Your task to perform on an android device: Do I have any events today? Image 0: 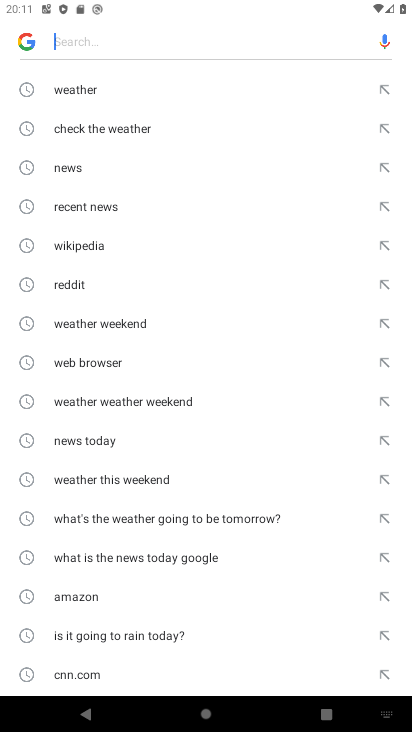
Step 0: press home button
Your task to perform on an android device: Do I have any events today? Image 1: 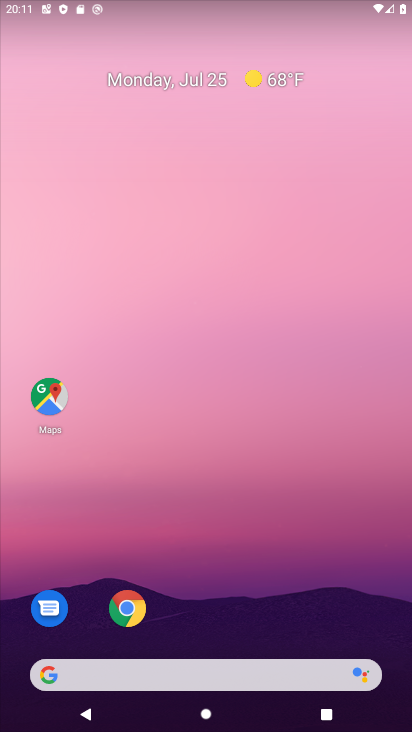
Step 1: drag from (223, 638) to (214, 0)
Your task to perform on an android device: Do I have any events today? Image 2: 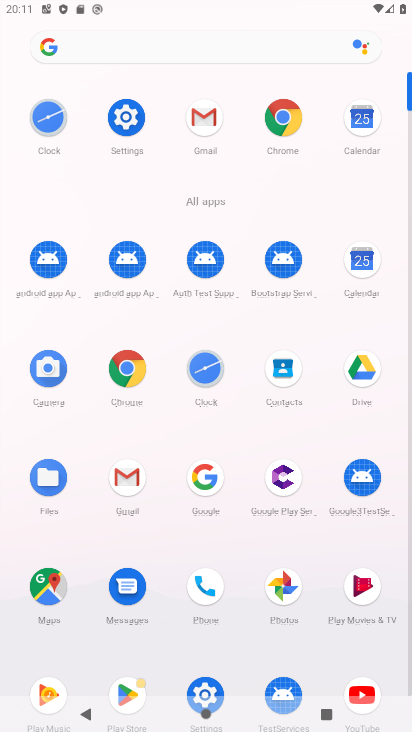
Step 2: click (362, 116)
Your task to perform on an android device: Do I have any events today? Image 3: 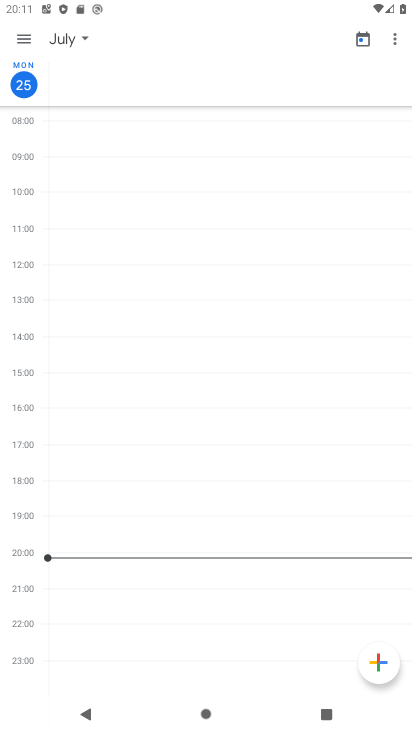
Step 3: task complete